Your task to perform on an android device: Open Yahoo.com Image 0: 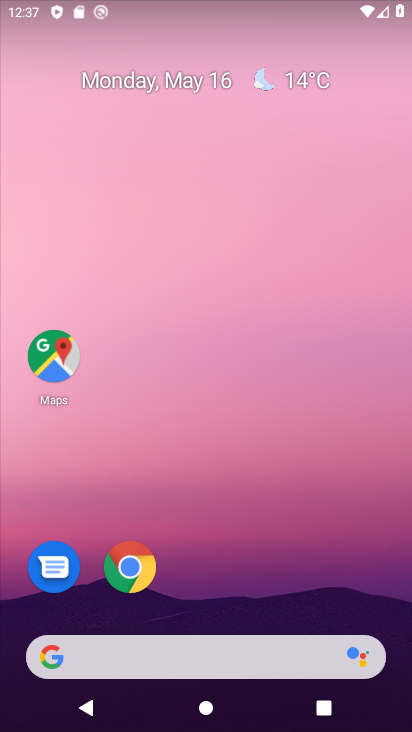
Step 0: click (144, 565)
Your task to perform on an android device: Open Yahoo.com Image 1: 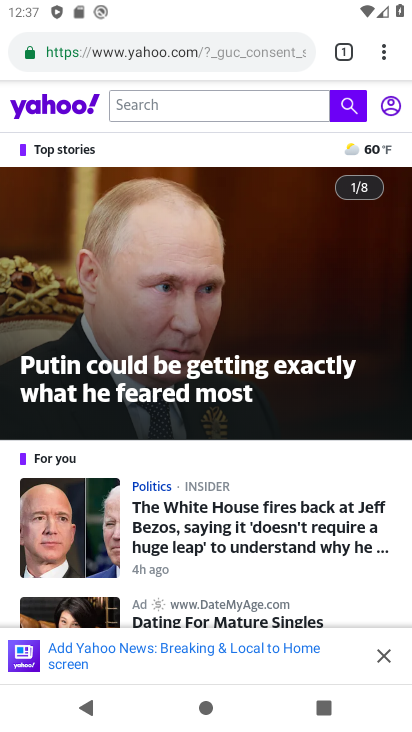
Step 1: task complete